Your task to perform on an android device: Open location settings Image 0: 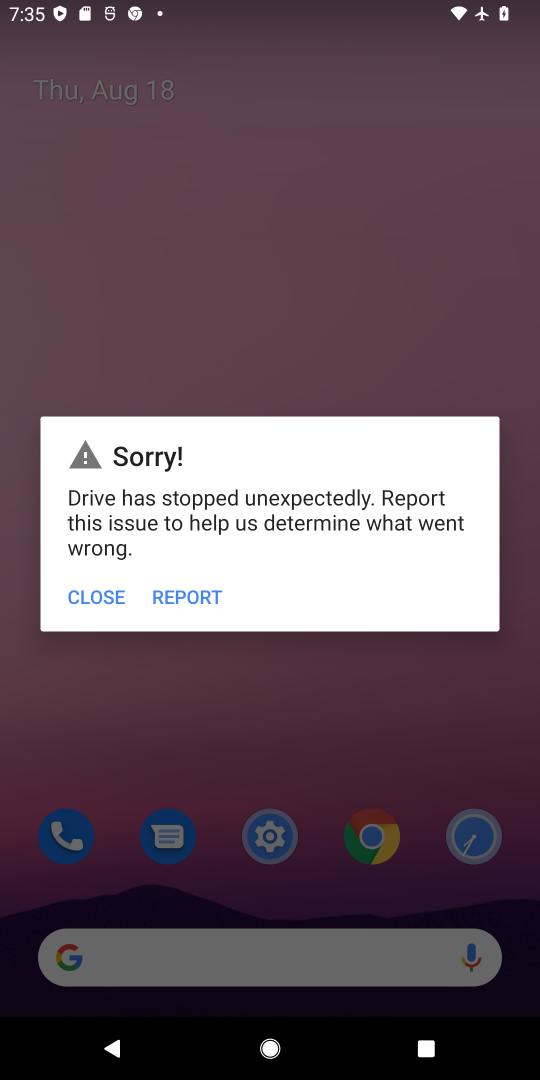
Step 0: press home button
Your task to perform on an android device: Open location settings Image 1: 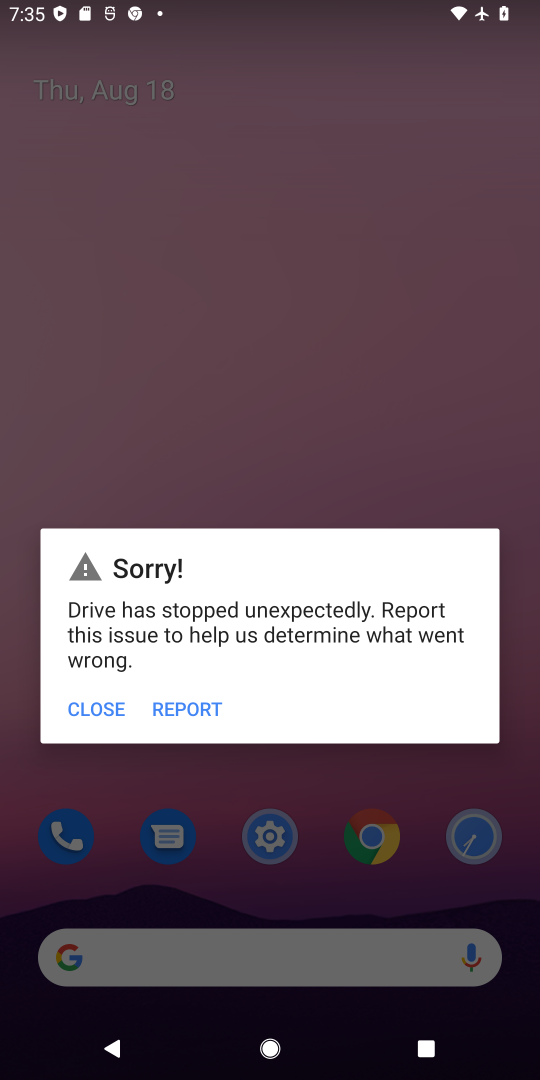
Step 1: press home button
Your task to perform on an android device: Open location settings Image 2: 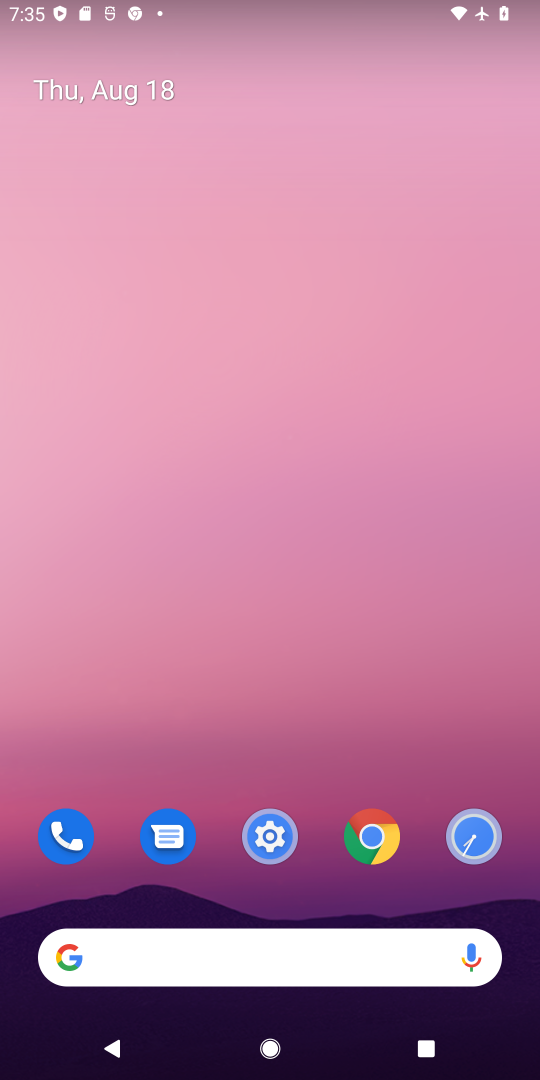
Step 2: drag from (315, 779) to (340, 76)
Your task to perform on an android device: Open location settings Image 3: 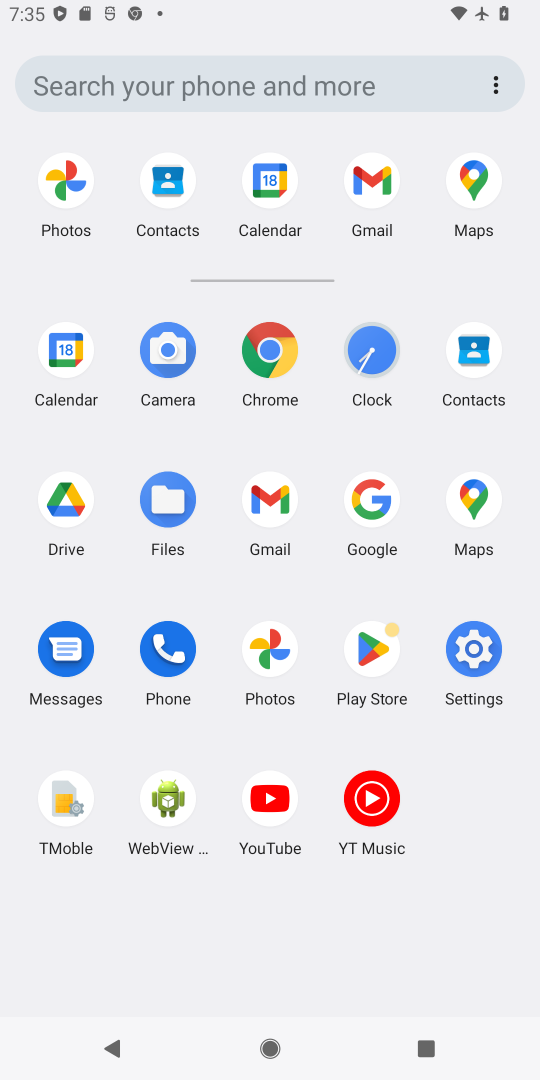
Step 3: click (487, 649)
Your task to perform on an android device: Open location settings Image 4: 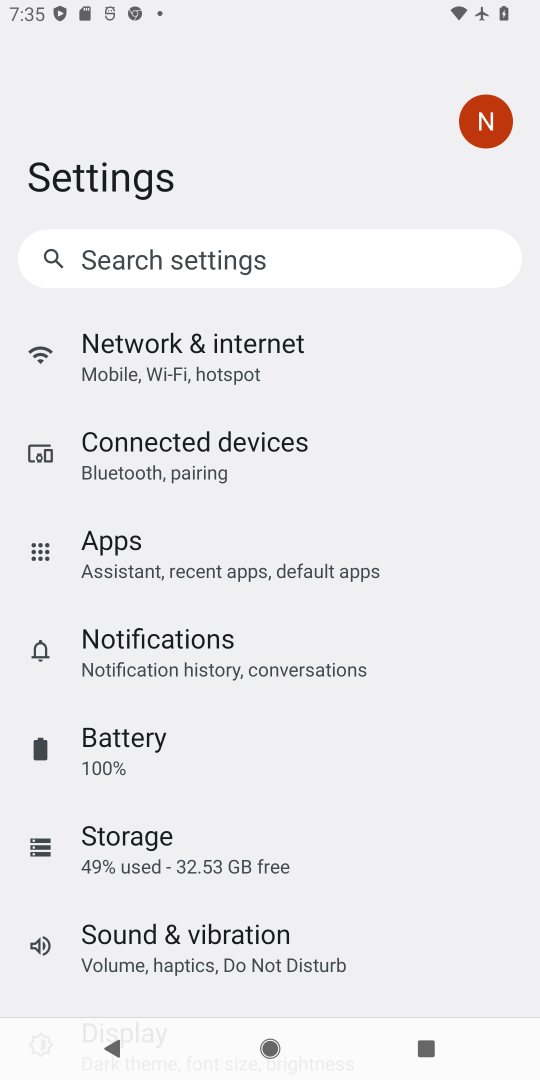
Step 4: drag from (331, 809) to (383, 91)
Your task to perform on an android device: Open location settings Image 5: 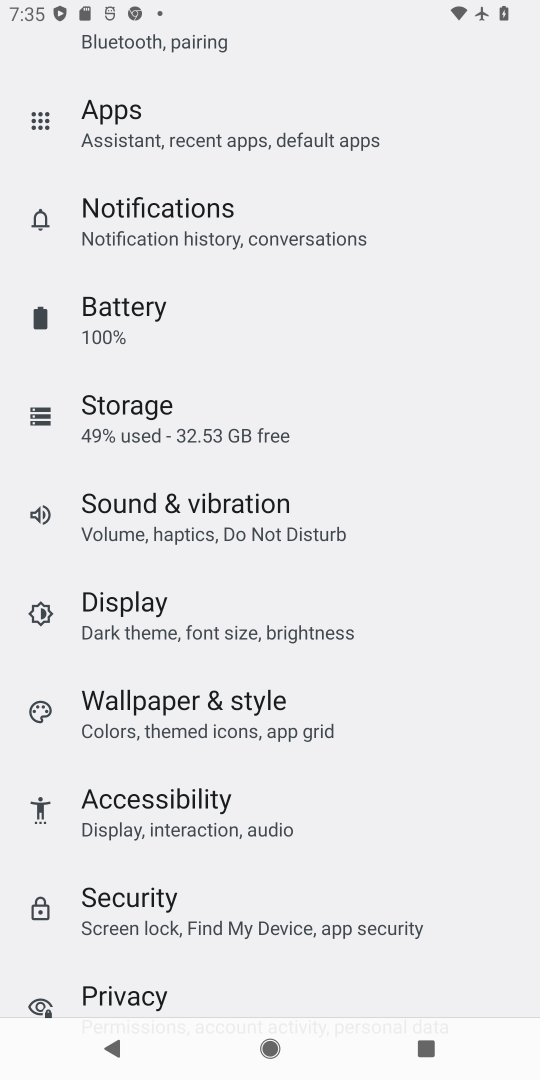
Step 5: drag from (377, 370) to (436, 230)
Your task to perform on an android device: Open location settings Image 6: 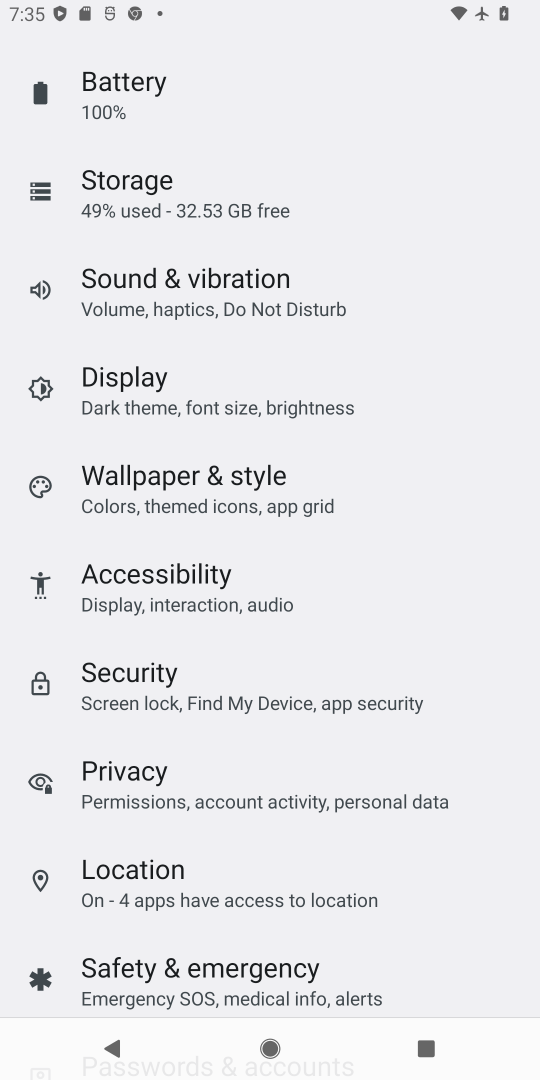
Step 6: click (169, 882)
Your task to perform on an android device: Open location settings Image 7: 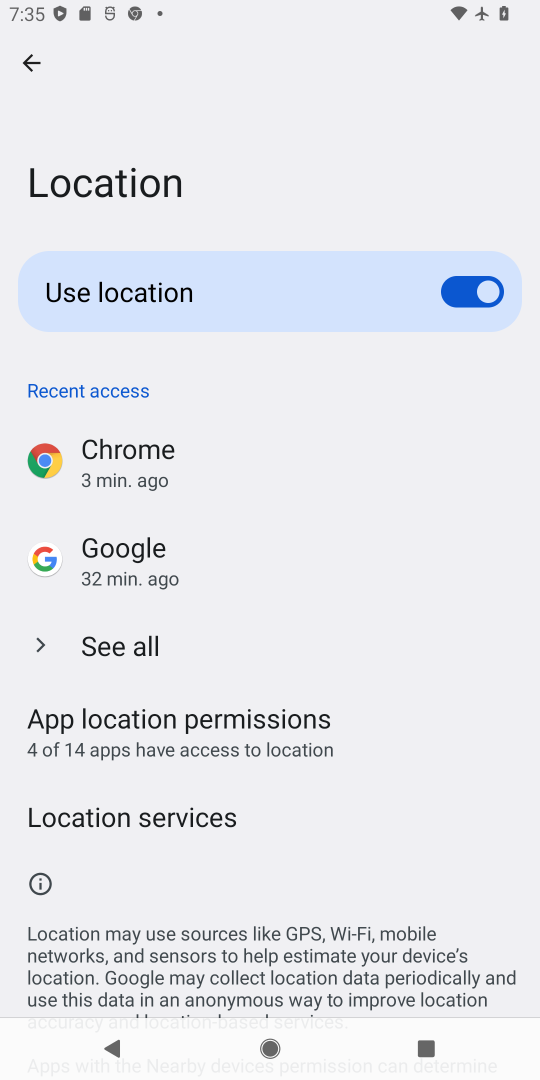
Step 7: task complete